Your task to perform on an android device: delete the emails in spam in the gmail app Image 0: 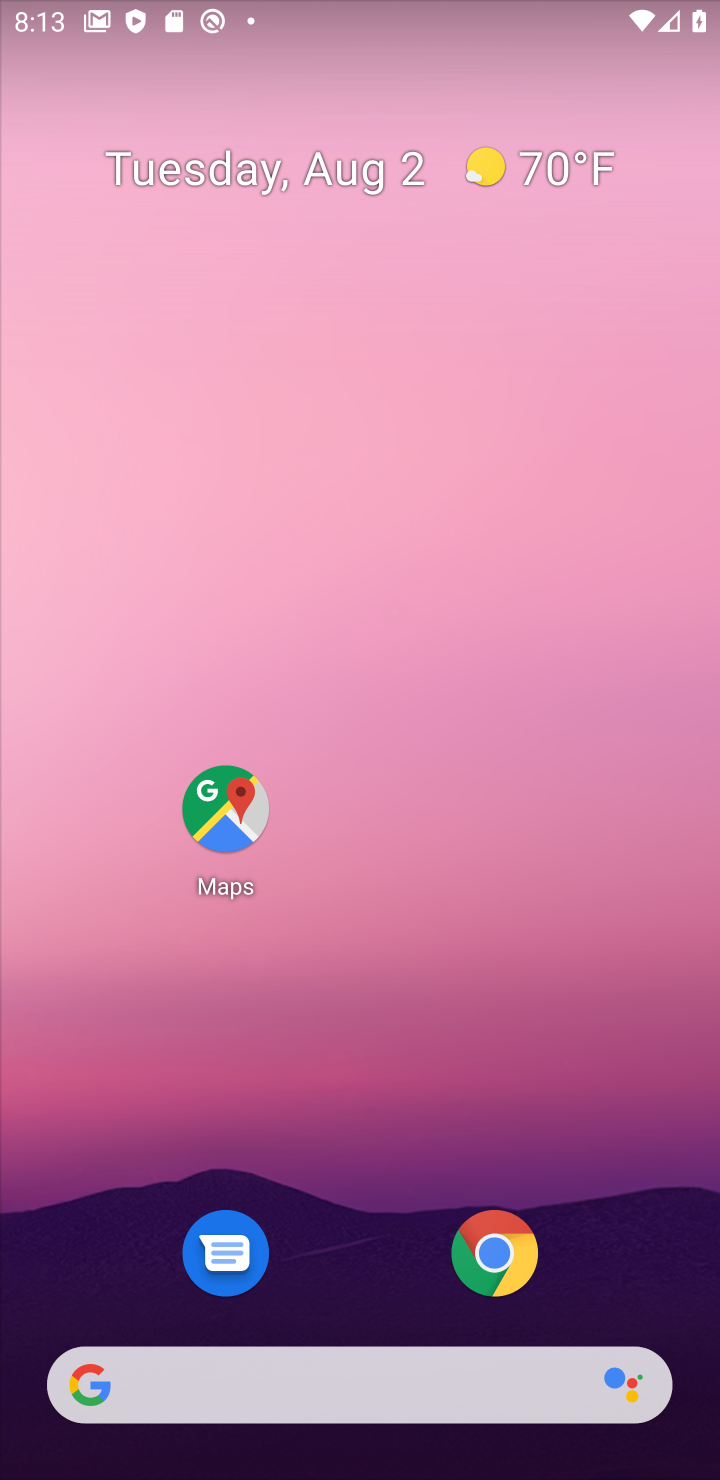
Step 0: drag from (361, 1358) to (568, 205)
Your task to perform on an android device: delete the emails in spam in the gmail app Image 1: 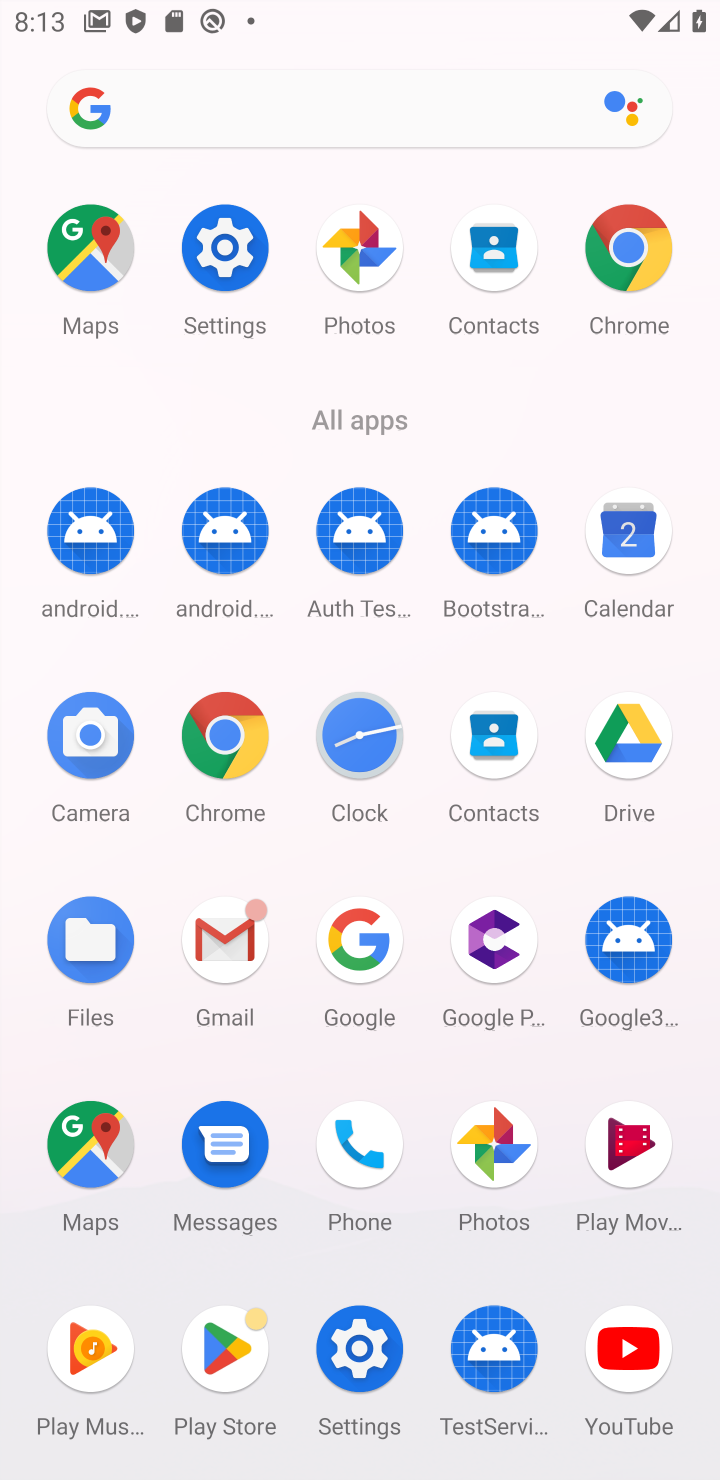
Step 1: click (234, 934)
Your task to perform on an android device: delete the emails in spam in the gmail app Image 2: 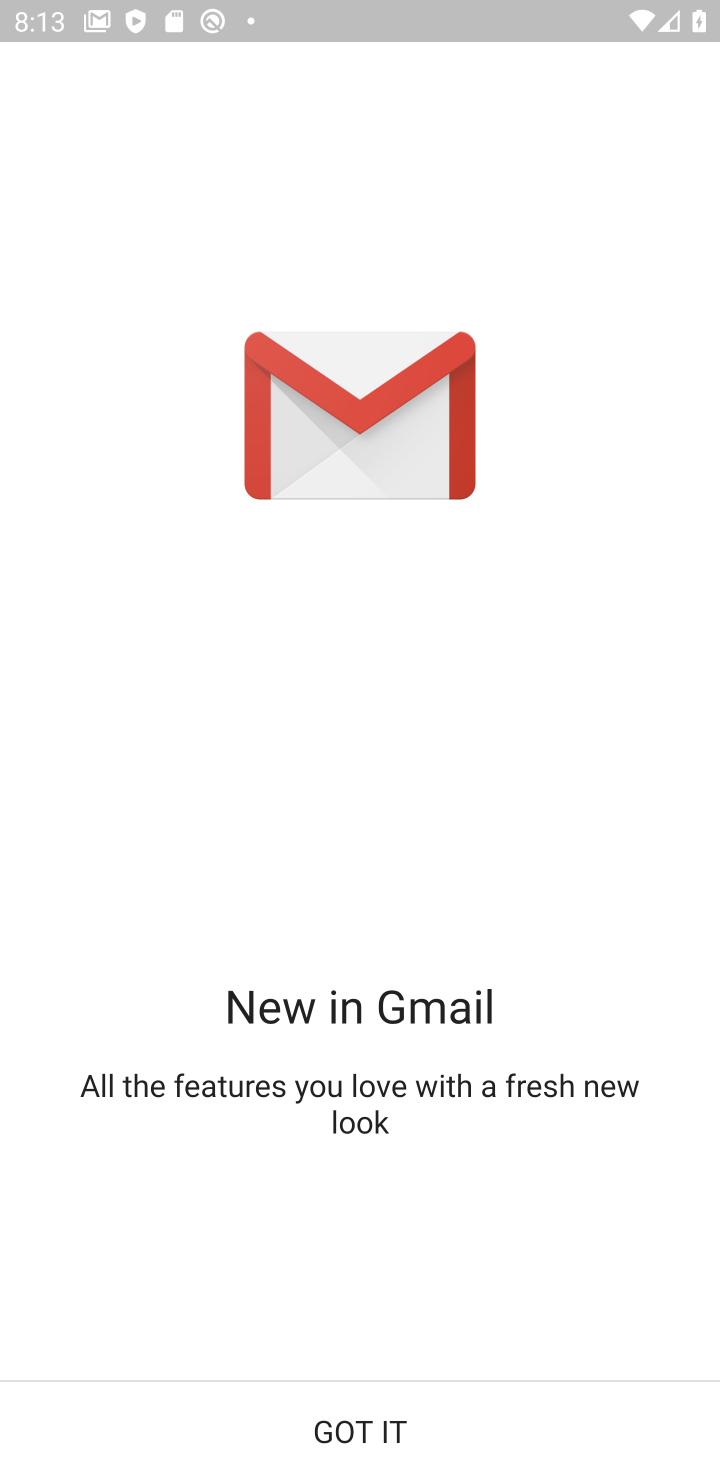
Step 2: click (392, 1422)
Your task to perform on an android device: delete the emails in spam in the gmail app Image 3: 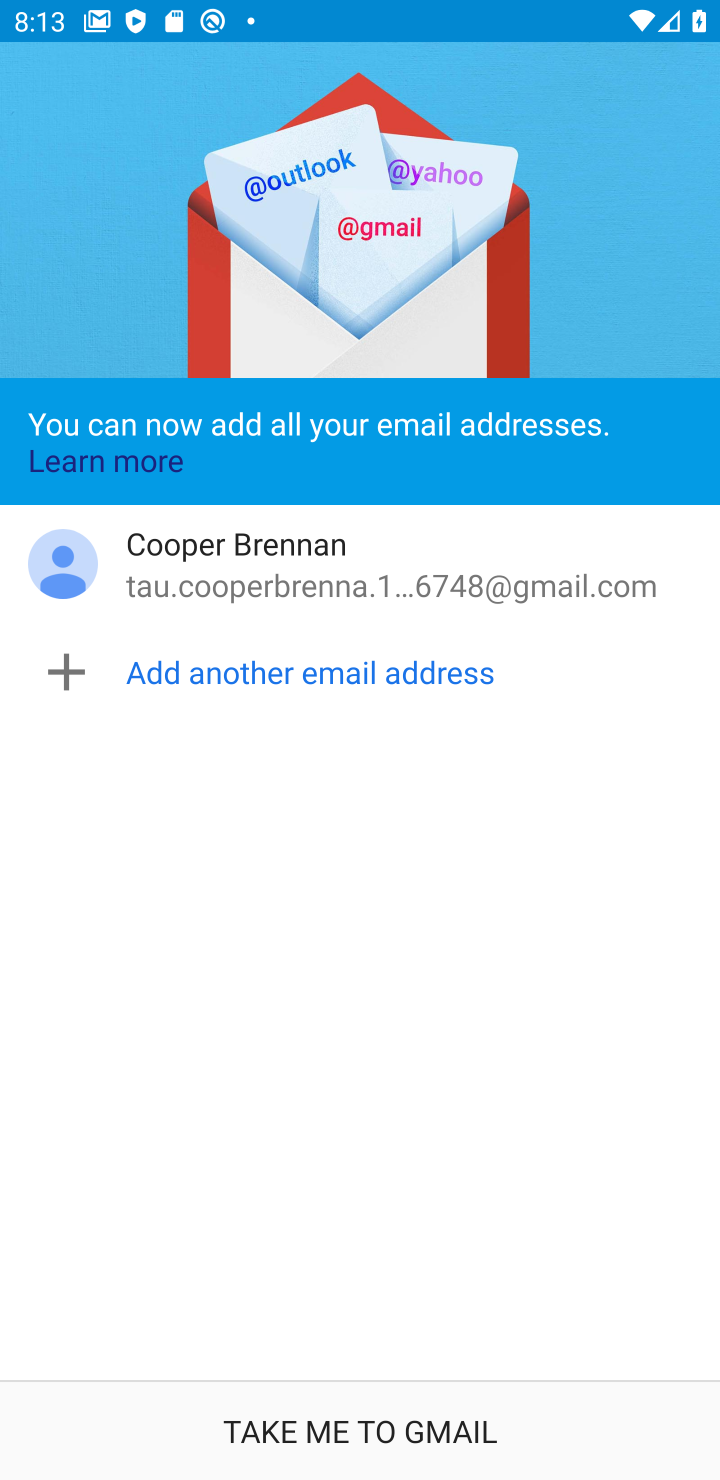
Step 3: click (392, 1422)
Your task to perform on an android device: delete the emails in spam in the gmail app Image 4: 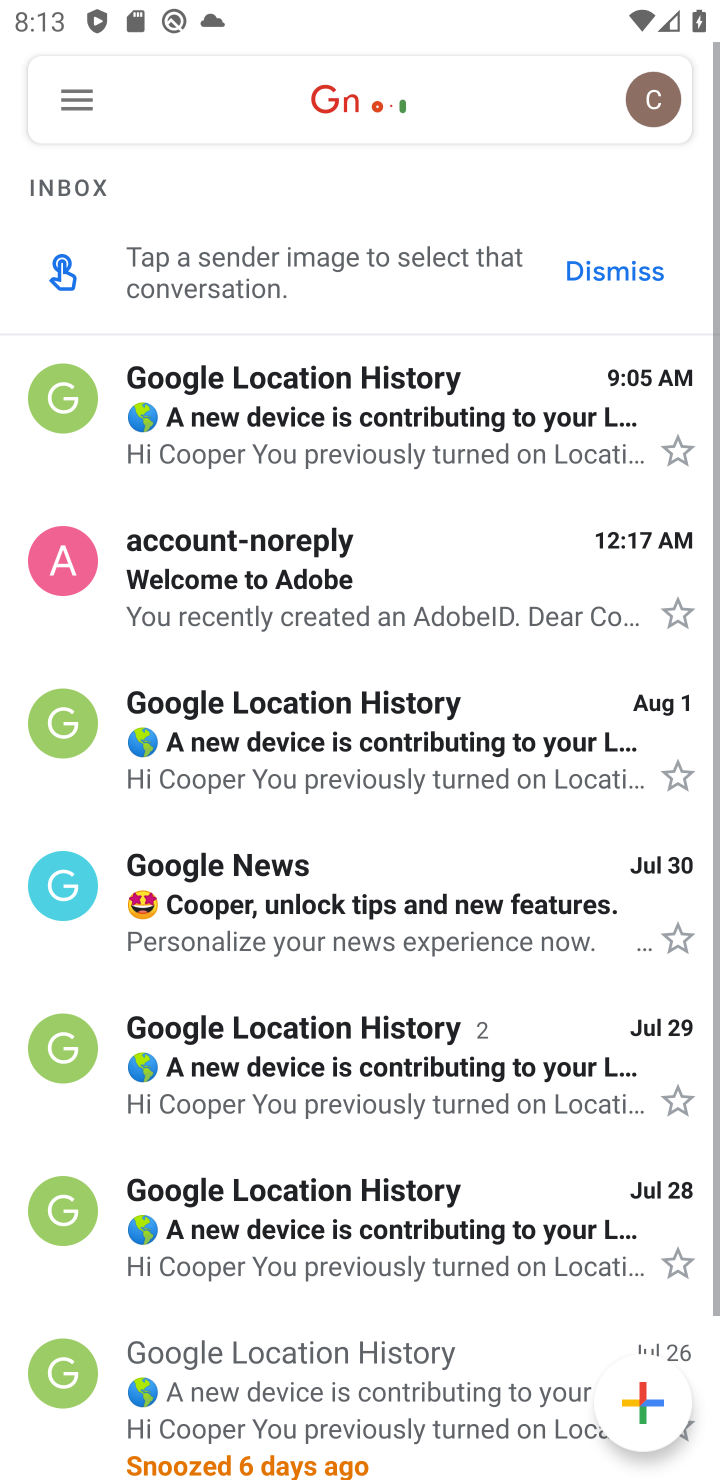
Step 4: click (90, 97)
Your task to perform on an android device: delete the emails in spam in the gmail app Image 5: 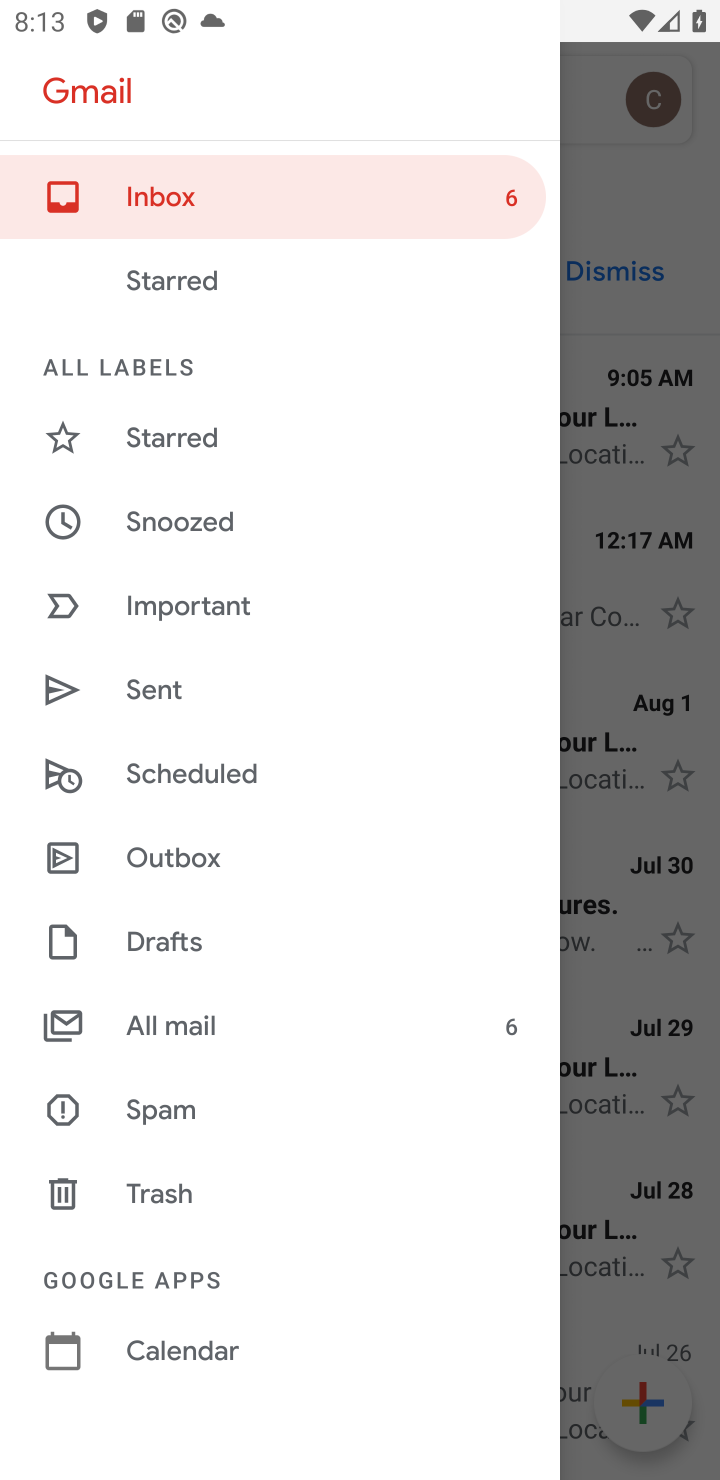
Step 5: click (160, 1110)
Your task to perform on an android device: delete the emails in spam in the gmail app Image 6: 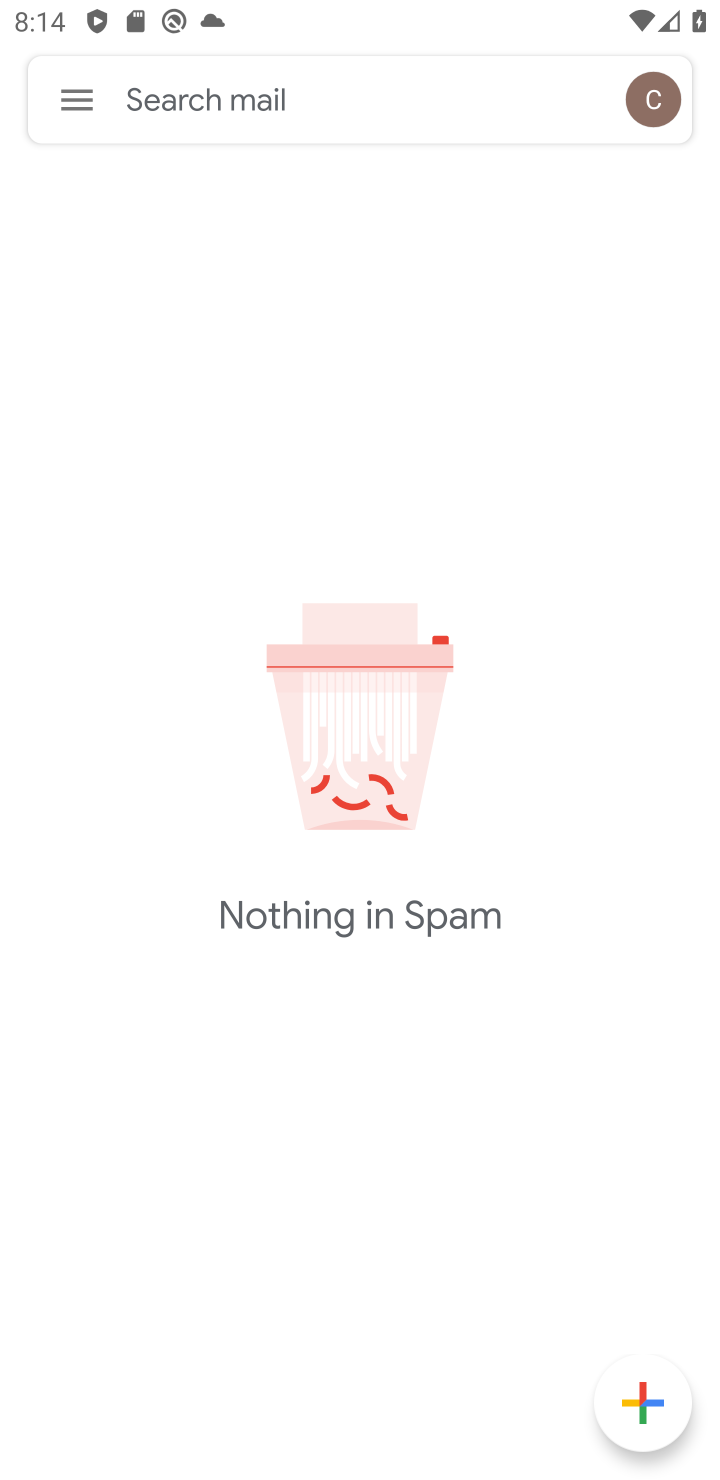
Step 6: task complete